Your task to perform on an android device: What's the weather today? Image 0: 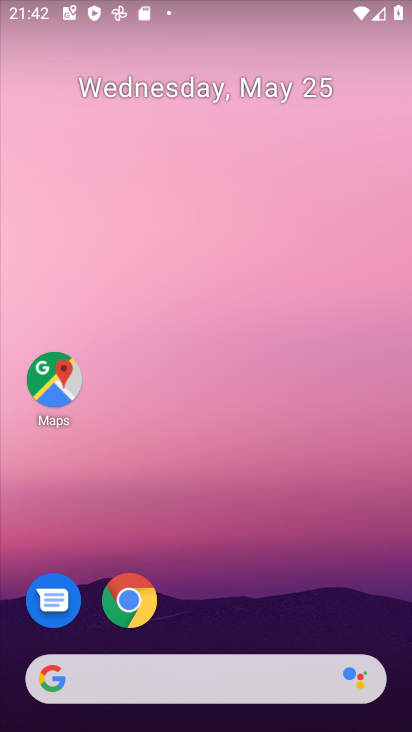
Step 0: drag from (278, 571) to (286, 117)
Your task to perform on an android device: What's the weather today? Image 1: 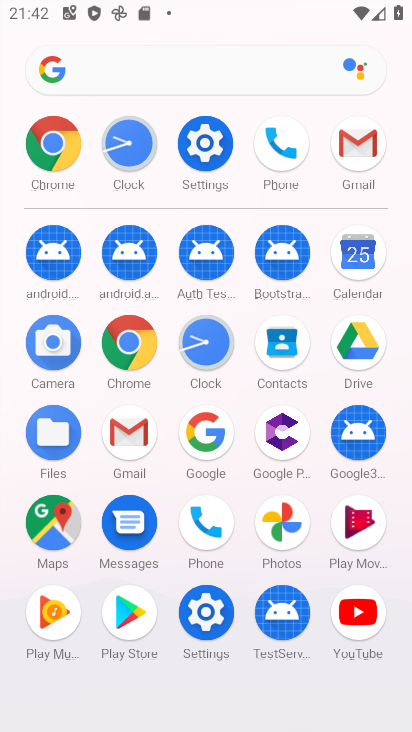
Step 1: click (153, 353)
Your task to perform on an android device: What's the weather today? Image 2: 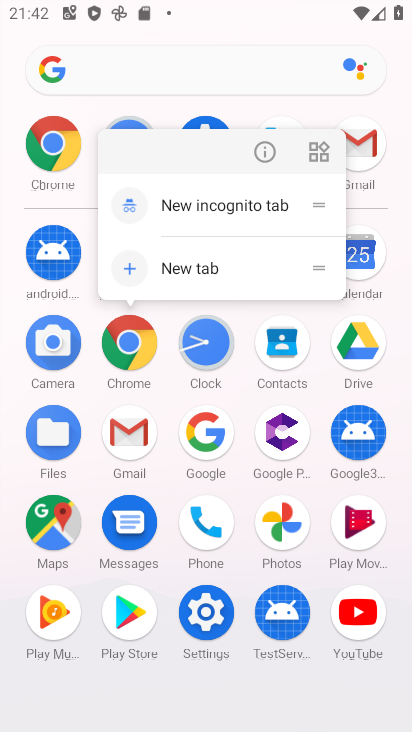
Step 2: click (148, 360)
Your task to perform on an android device: What's the weather today? Image 3: 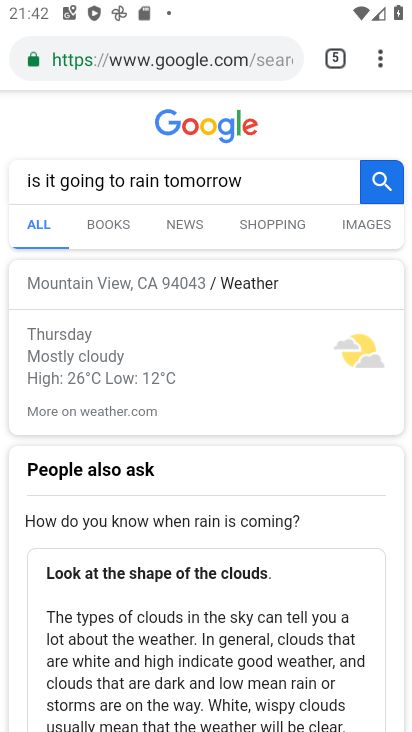
Step 3: click (232, 61)
Your task to perform on an android device: What's the weather today? Image 4: 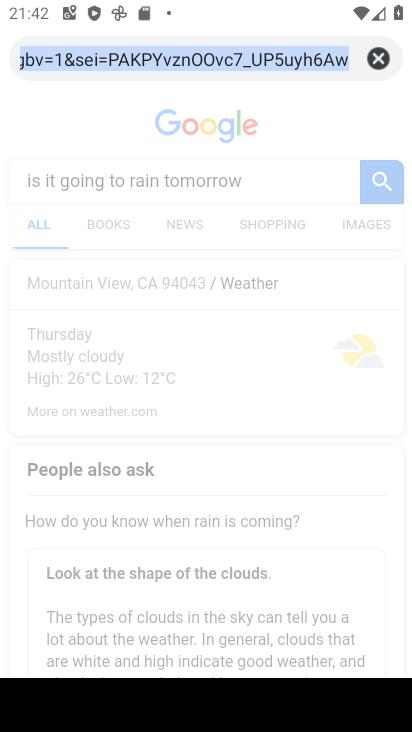
Step 4: click (378, 64)
Your task to perform on an android device: What's the weather today? Image 5: 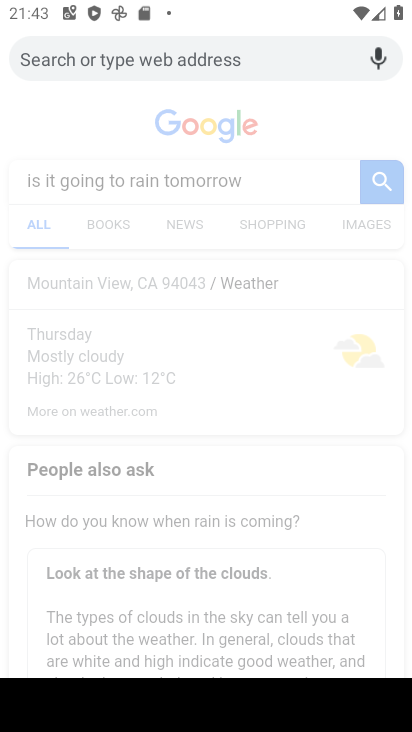
Step 5: type "what's the weather today"
Your task to perform on an android device: What's the weather today? Image 6: 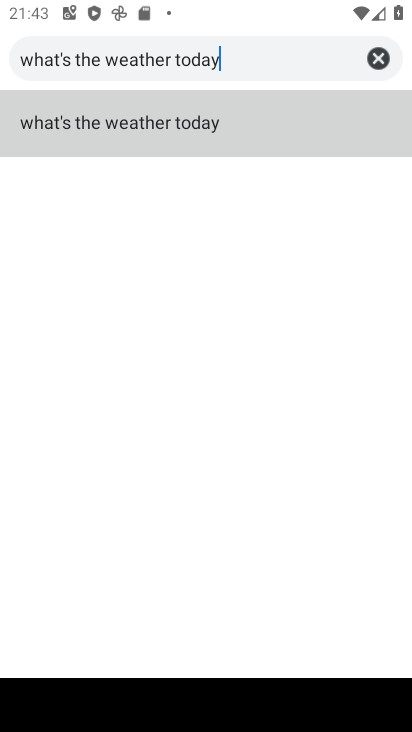
Step 6: click (205, 127)
Your task to perform on an android device: What's the weather today? Image 7: 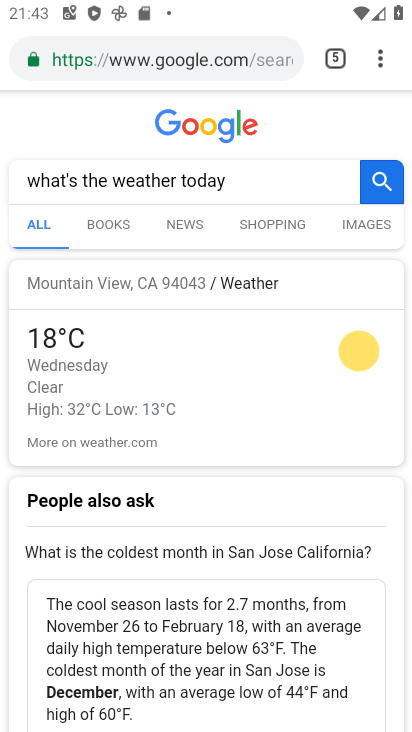
Step 7: task complete